Your task to perform on an android device: Open Wikipedia Image 0: 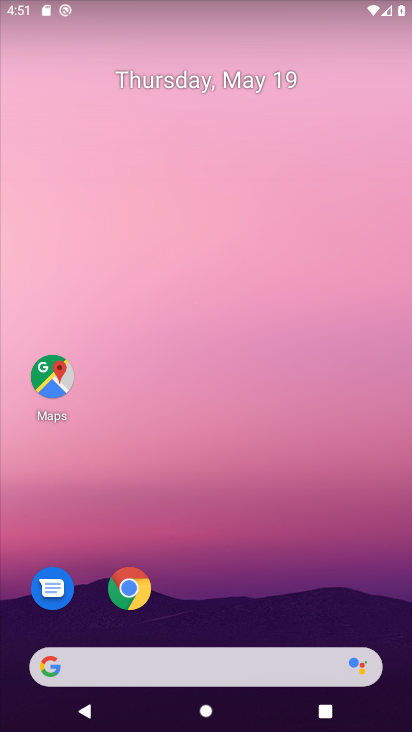
Step 0: click (324, 314)
Your task to perform on an android device: Open Wikipedia Image 1: 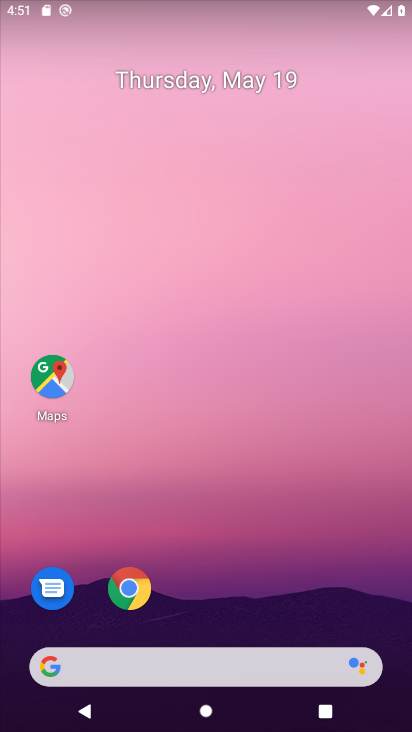
Step 1: click (136, 598)
Your task to perform on an android device: Open Wikipedia Image 2: 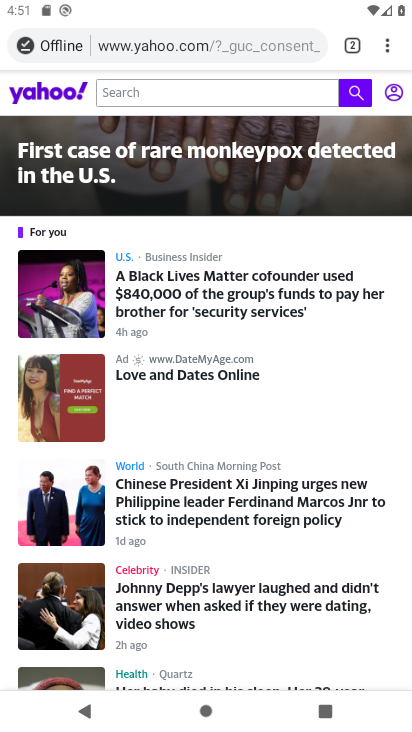
Step 2: click (193, 49)
Your task to perform on an android device: Open Wikipedia Image 3: 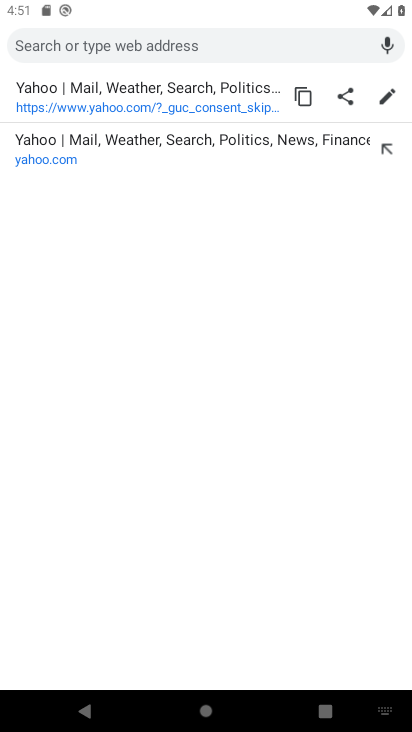
Step 3: type "wikipedia"
Your task to perform on an android device: Open Wikipedia Image 4: 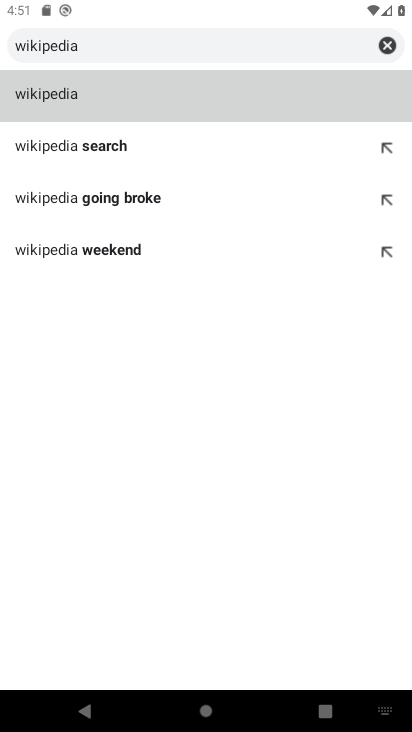
Step 4: click (127, 109)
Your task to perform on an android device: Open Wikipedia Image 5: 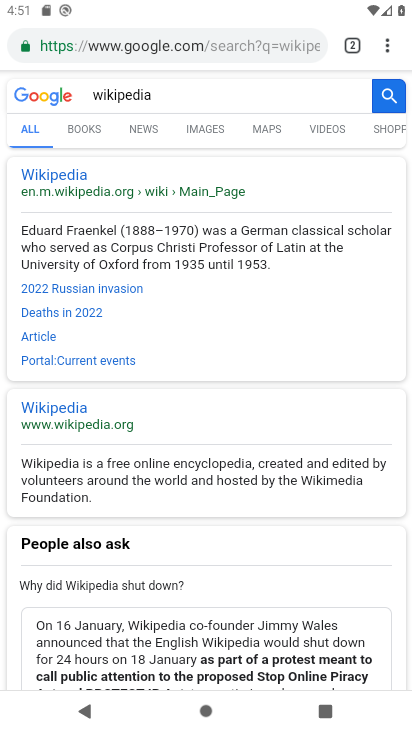
Step 5: task complete